Your task to perform on an android device: Open Youtube and go to "Your channel" Image 0: 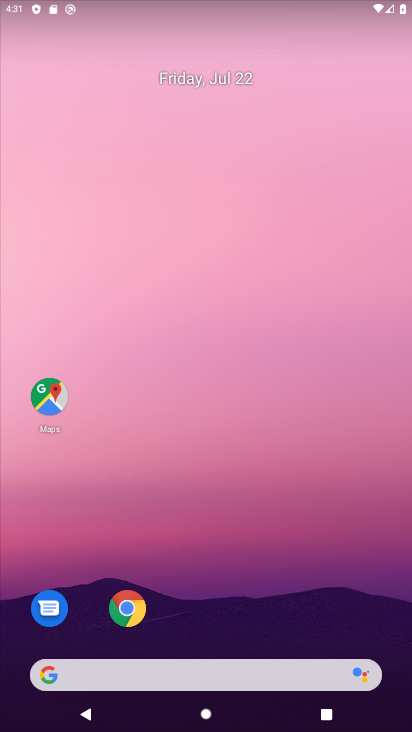
Step 0: drag from (266, 623) to (247, 262)
Your task to perform on an android device: Open Youtube and go to "Your channel" Image 1: 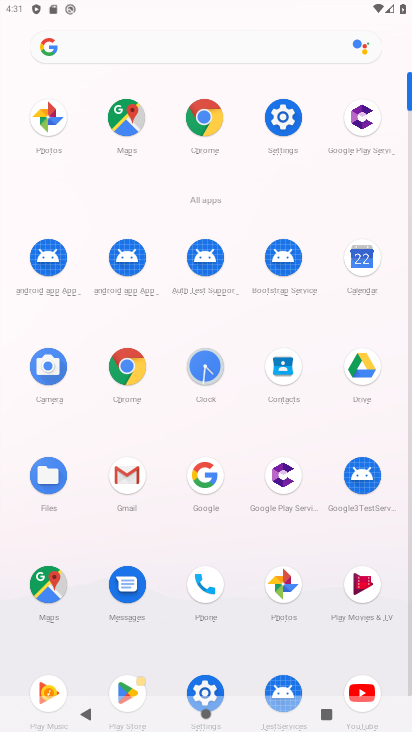
Step 1: click (358, 683)
Your task to perform on an android device: Open Youtube and go to "Your channel" Image 2: 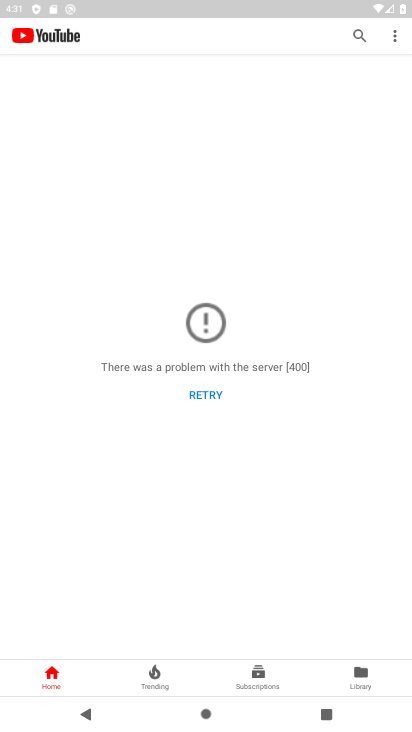
Step 2: click (359, 33)
Your task to perform on an android device: Open Youtube and go to "Your channel" Image 3: 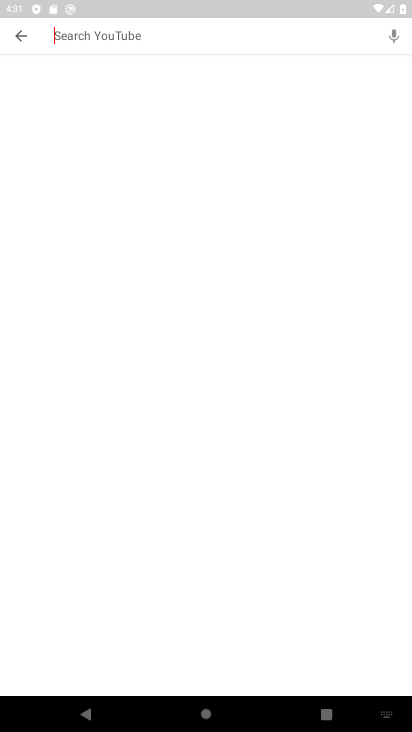
Step 3: type "your channe;"
Your task to perform on an android device: Open Youtube and go to "Your channel" Image 4: 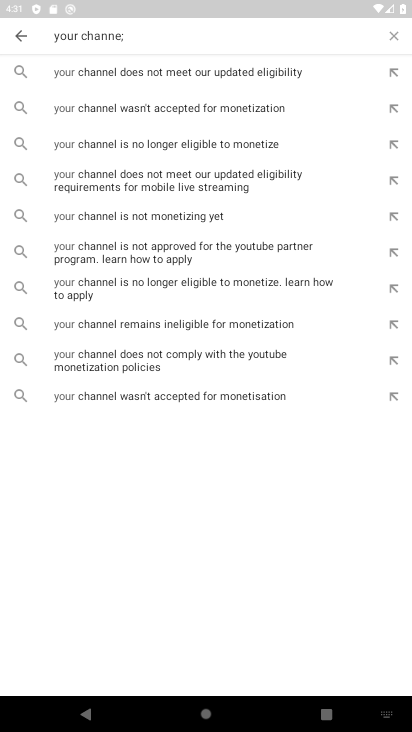
Step 4: click (395, 36)
Your task to perform on an android device: Open Youtube and go to "Your channel" Image 5: 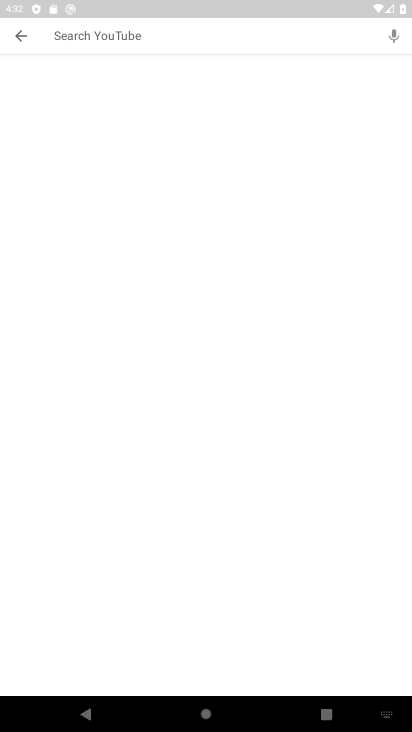
Step 5: type "your channel"
Your task to perform on an android device: Open Youtube and go to "Your channel" Image 6: 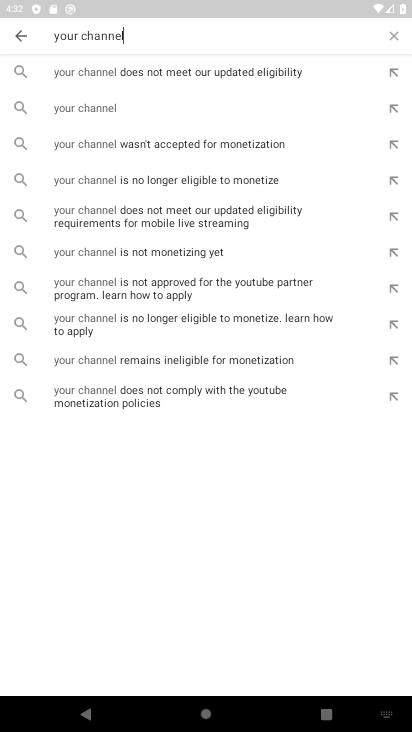
Step 6: click (107, 102)
Your task to perform on an android device: Open Youtube and go to "Your channel" Image 7: 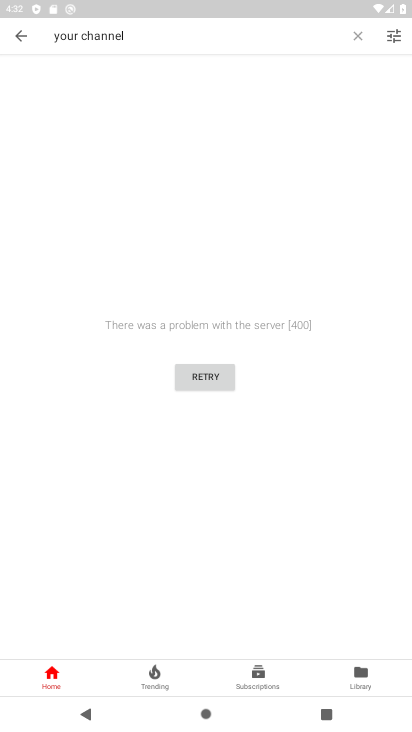
Step 7: task complete